Your task to perform on an android device: change notifications settings Image 0: 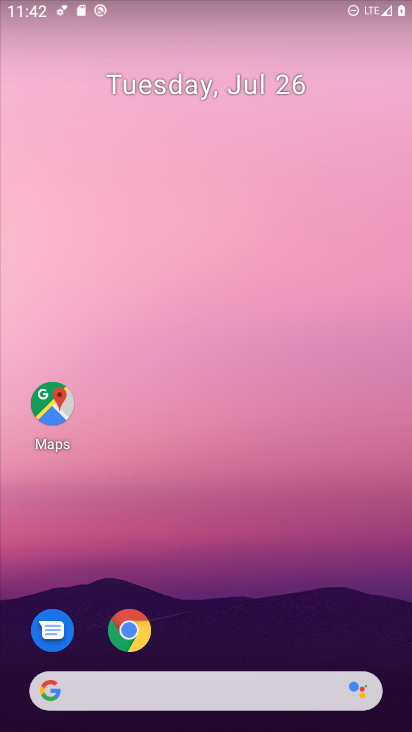
Step 0: drag from (336, 618) to (337, 72)
Your task to perform on an android device: change notifications settings Image 1: 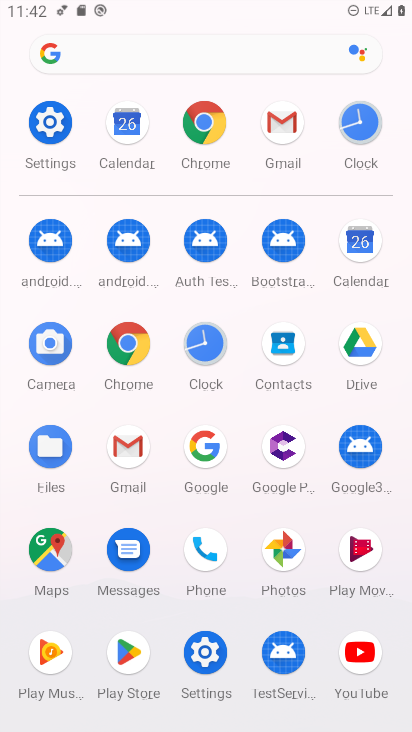
Step 1: click (209, 652)
Your task to perform on an android device: change notifications settings Image 2: 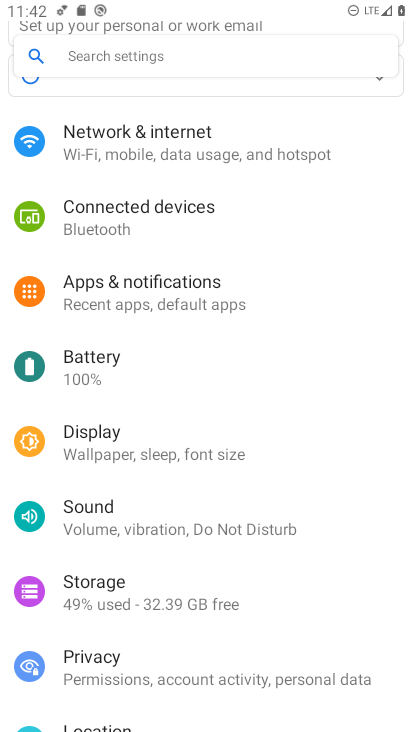
Step 2: click (140, 290)
Your task to perform on an android device: change notifications settings Image 3: 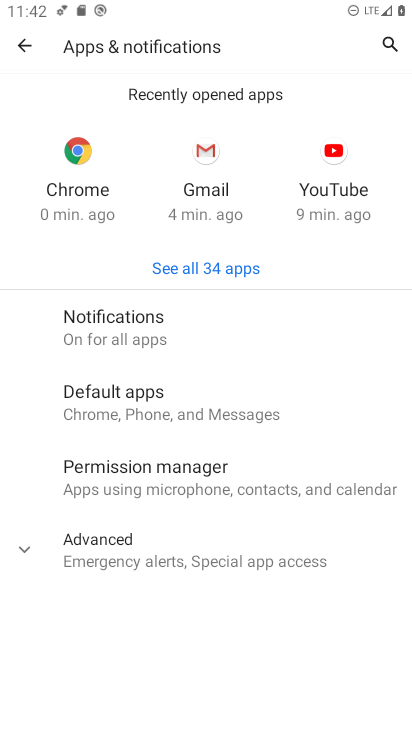
Step 3: click (123, 319)
Your task to perform on an android device: change notifications settings Image 4: 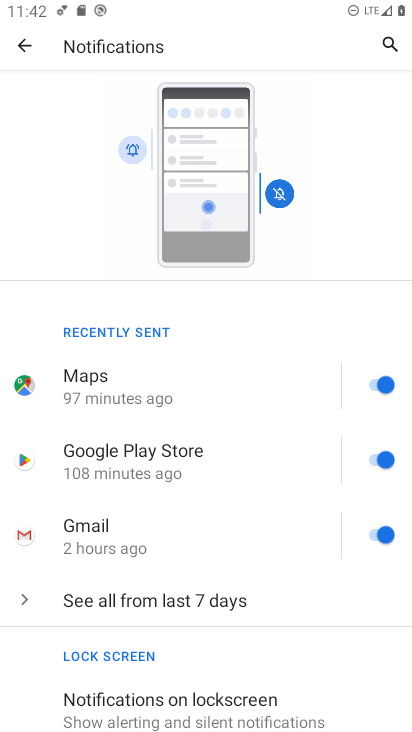
Step 4: drag from (315, 657) to (318, 135)
Your task to perform on an android device: change notifications settings Image 5: 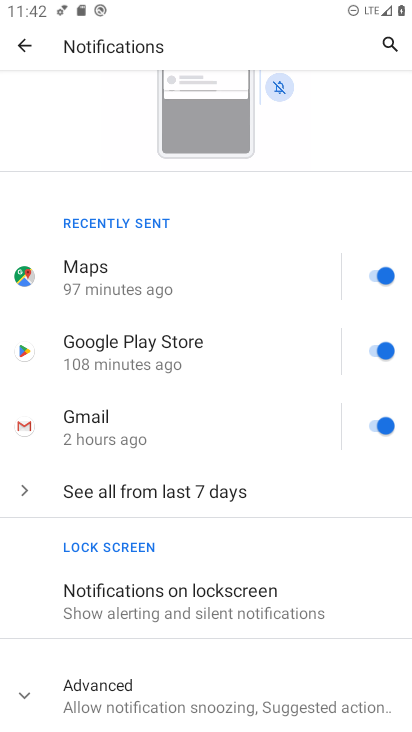
Step 5: click (17, 695)
Your task to perform on an android device: change notifications settings Image 6: 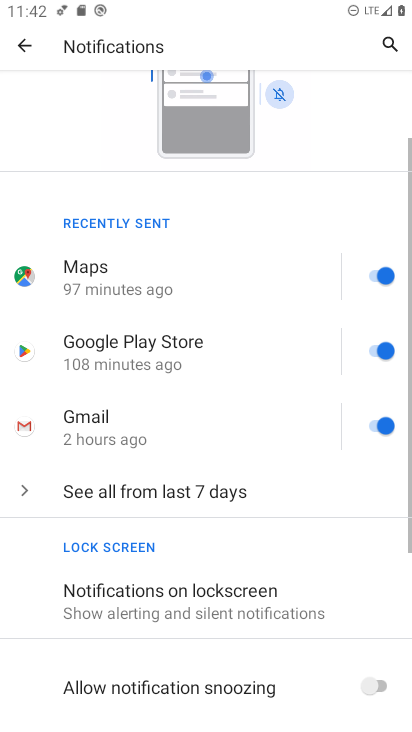
Step 6: drag from (317, 695) to (312, 215)
Your task to perform on an android device: change notifications settings Image 7: 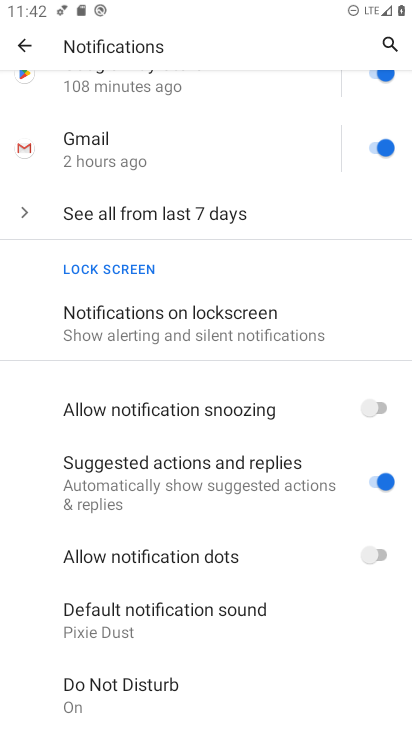
Step 7: click (379, 551)
Your task to perform on an android device: change notifications settings Image 8: 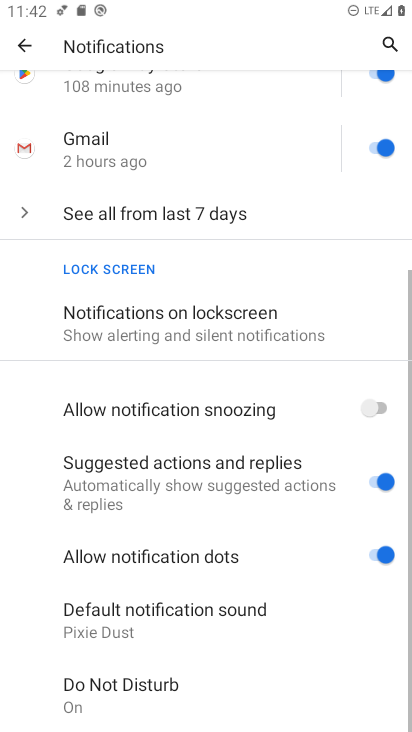
Step 8: click (384, 403)
Your task to perform on an android device: change notifications settings Image 9: 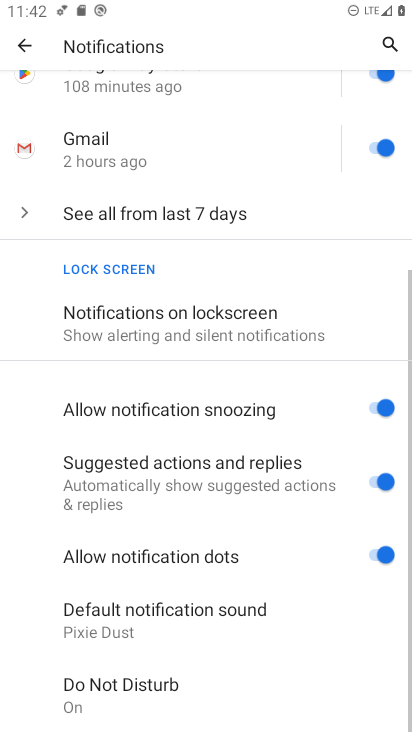
Step 9: task complete